Your task to perform on an android device: turn notification dots off Image 0: 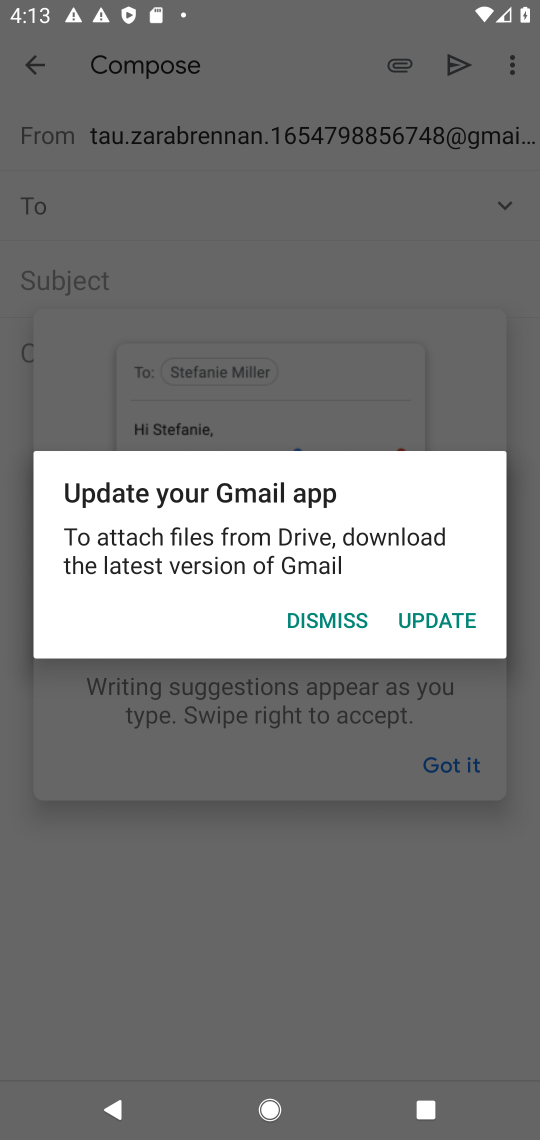
Step 0: press home button
Your task to perform on an android device: turn notification dots off Image 1: 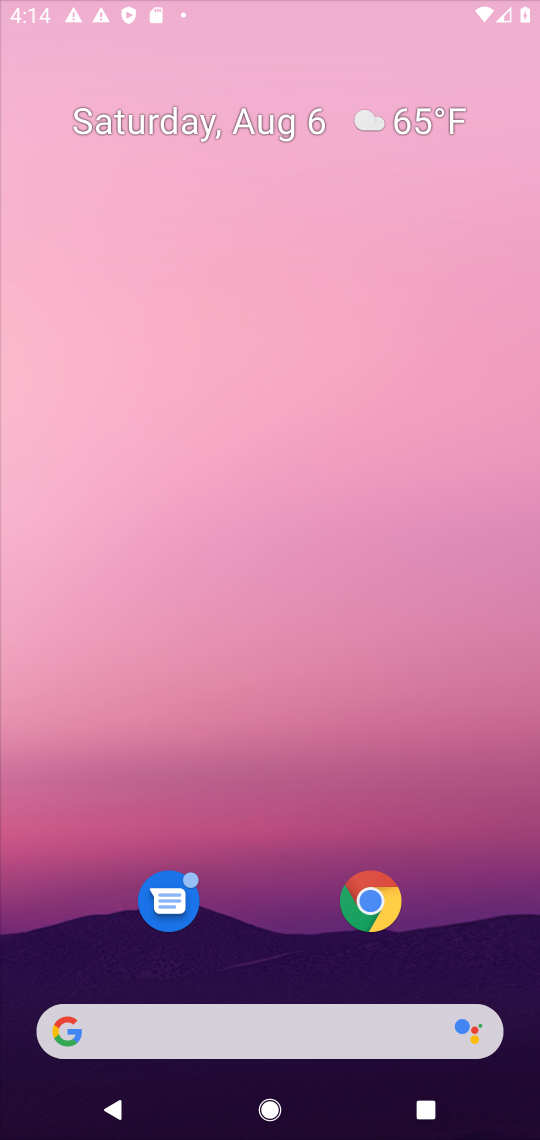
Step 1: drag from (479, 858) to (503, 806)
Your task to perform on an android device: turn notification dots off Image 2: 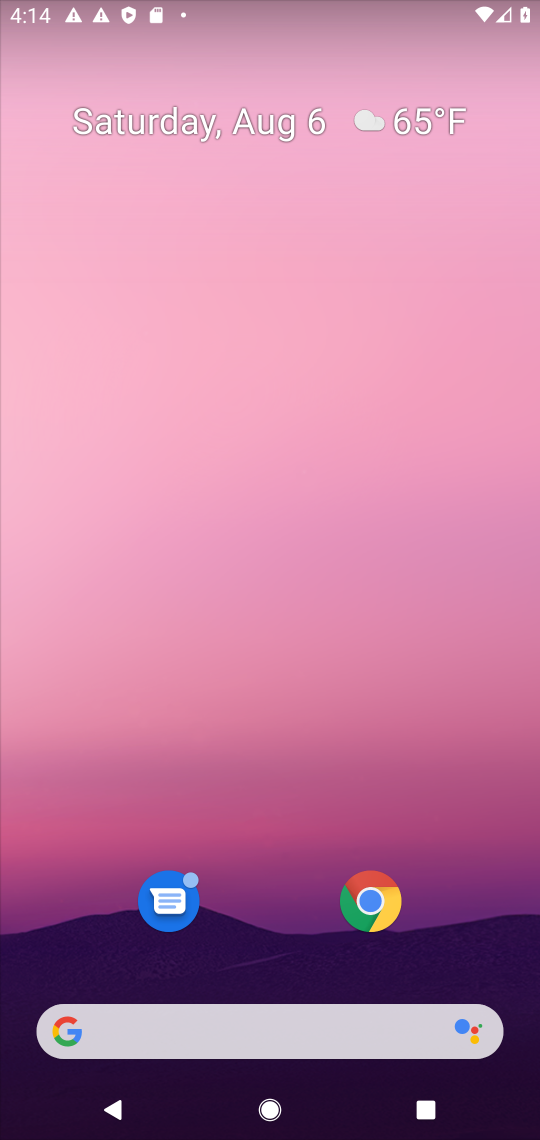
Step 2: drag from (267, 855) to (250, 123)
Your task to perform on an android device: turn notification dots off Image 3: 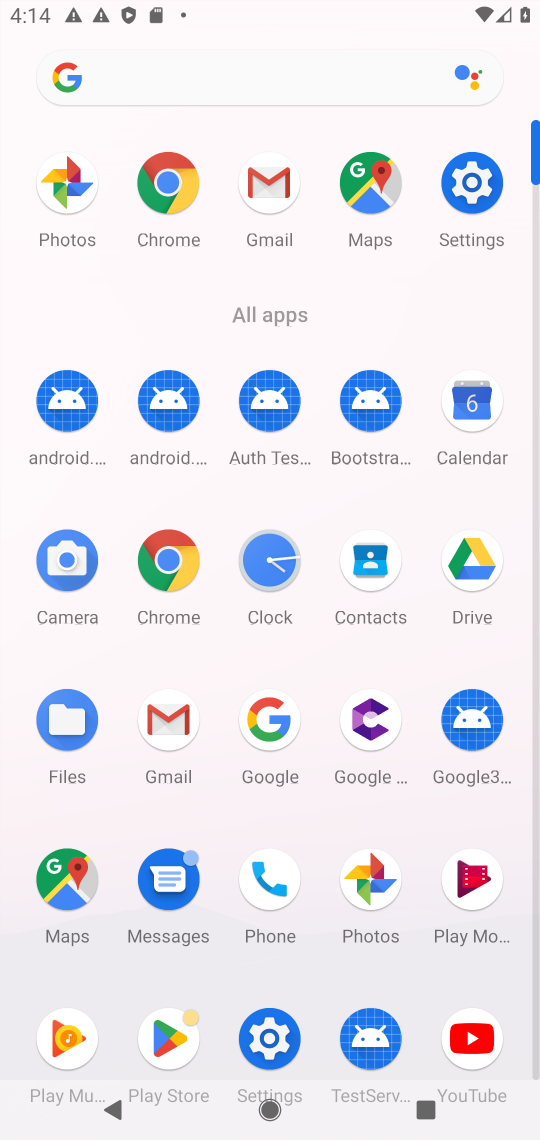
Step 3: click (472, 198)
Your task to perform on an android device: turn notification dots off Image 4: 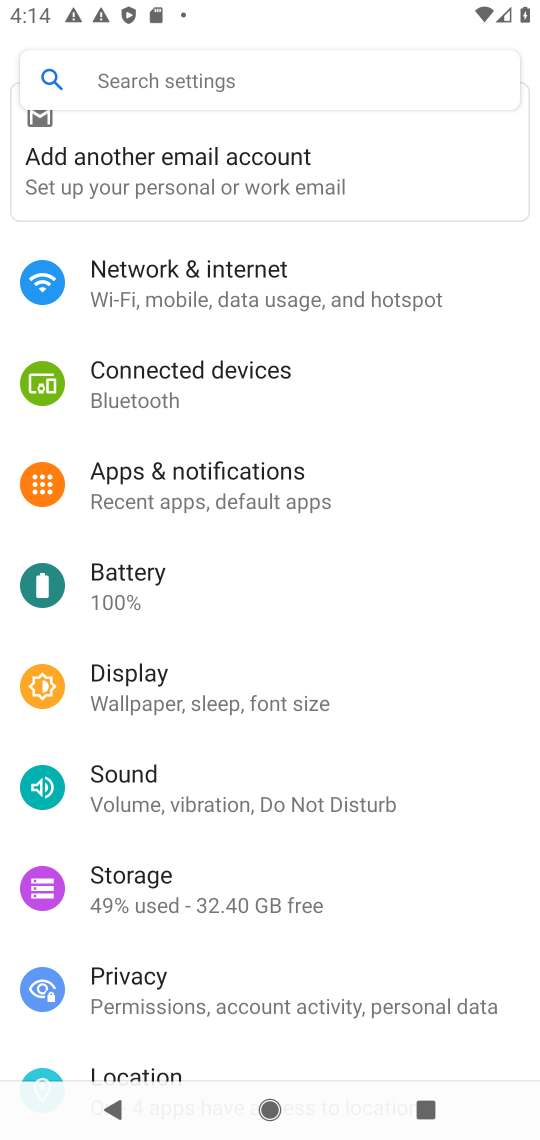
Step 4: click (191, 477)
Your task to perform on an android device: turn notification dots off Image 5: 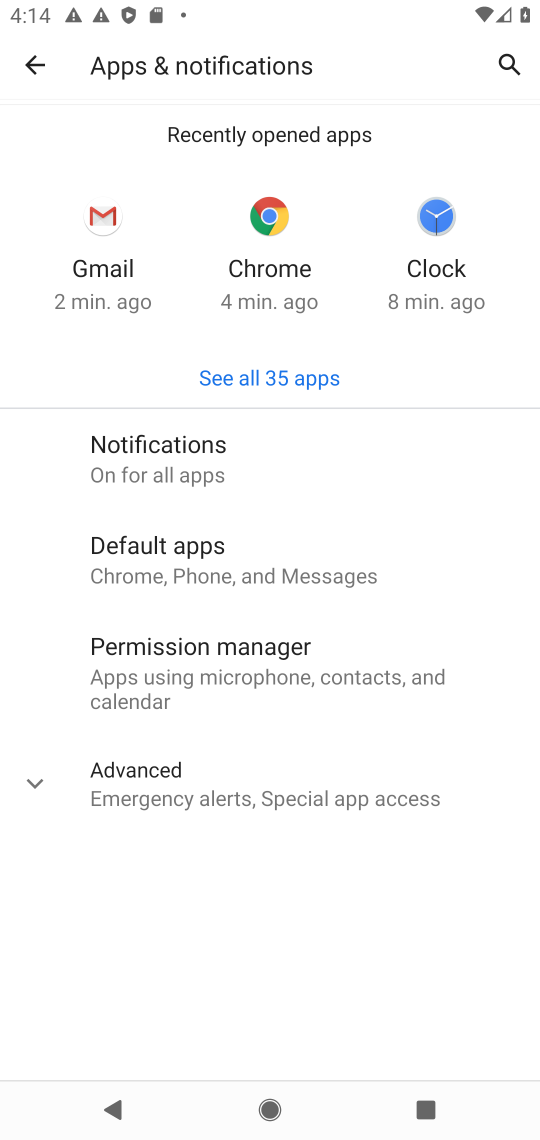
Step 5: click (135, 437)
Your task to perform on an android device: turn notification dots off Image 6: 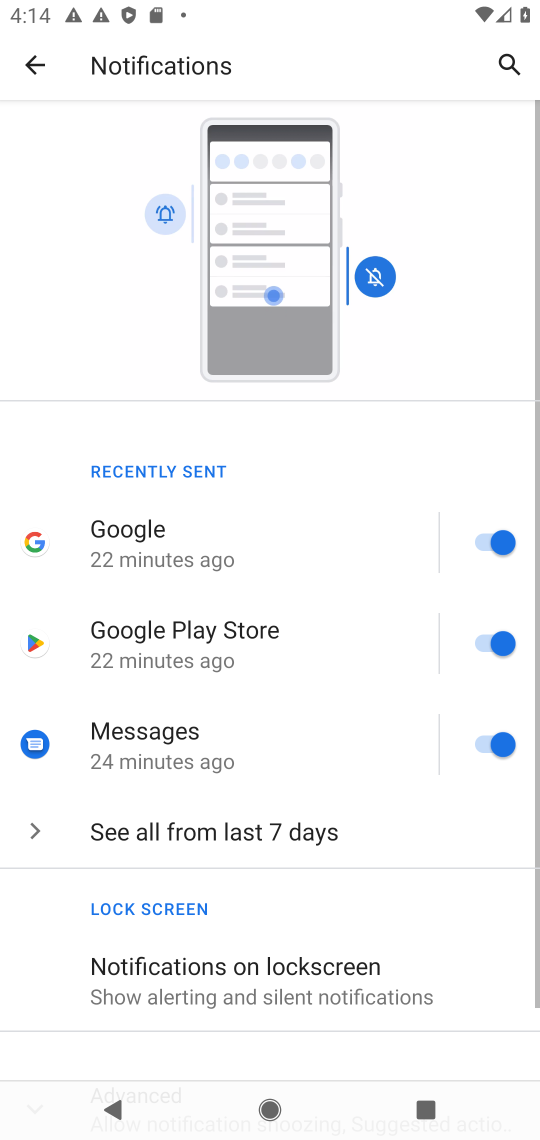
Step 6: drag from (231, 986) to (200, 215)
Your task to perform on an android device: turn notification dots off Image 7: 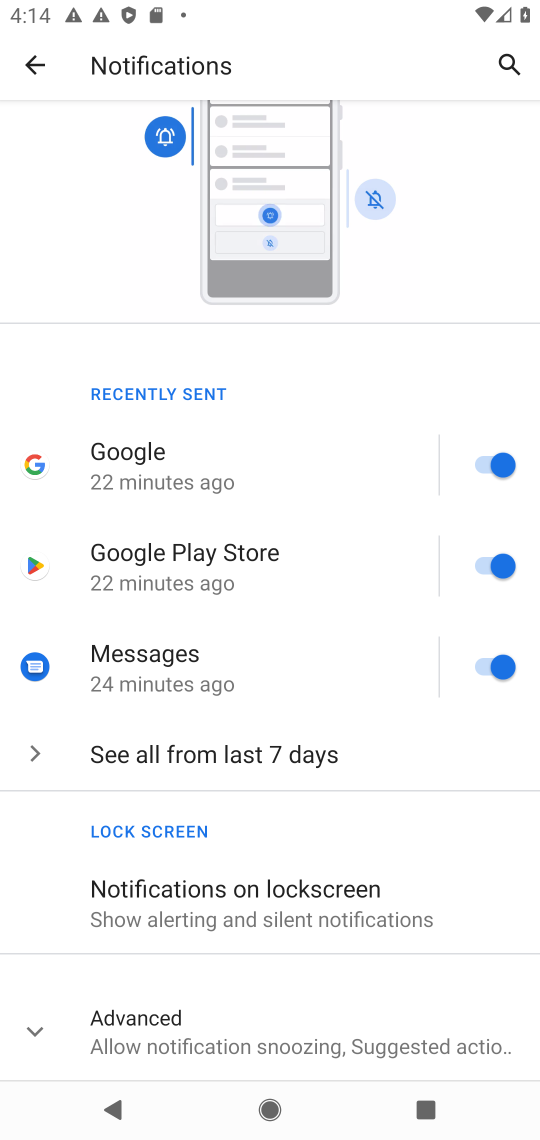
Step 7: click (228, 1042)
Your task to perform on an android device: turn notification dots off Image 8: 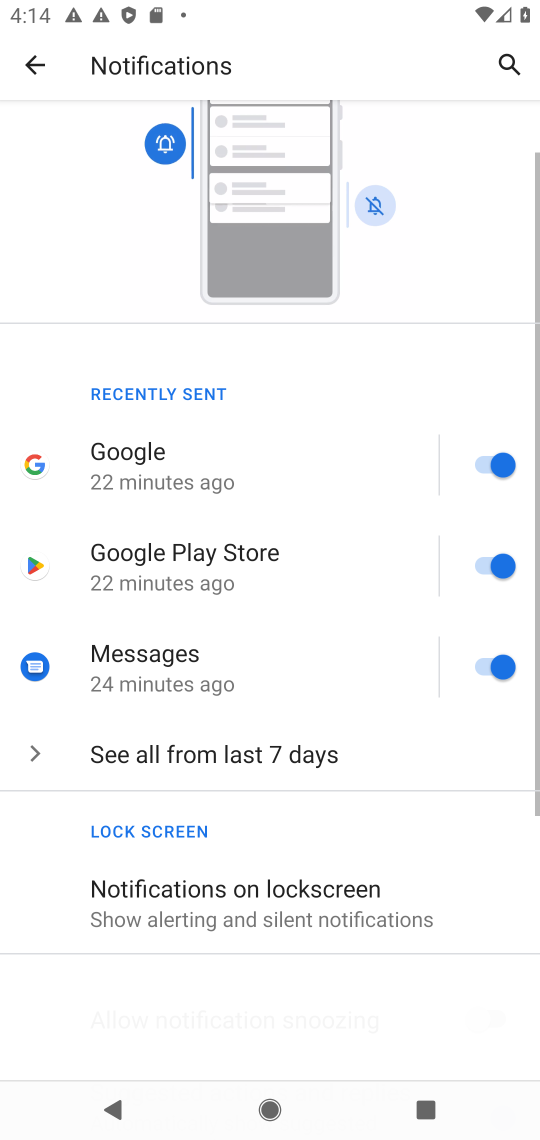
Step 8: drag from (261, 1011) to (271, 348)
Your task to perform on an android device: turn notification dots off Image 9: 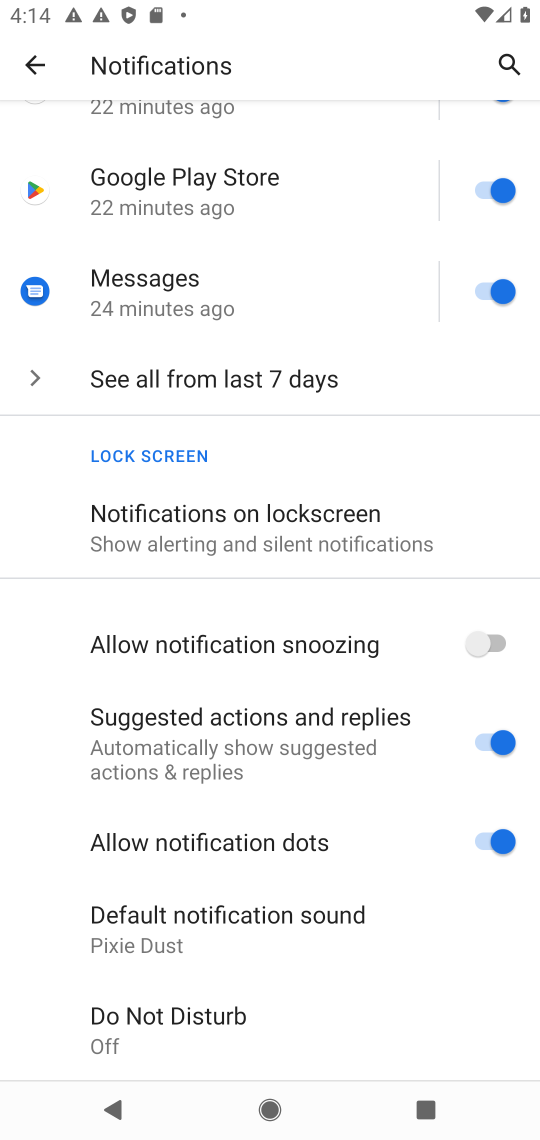
Step 9: click (265, 855)
Your task to perform on an android device: turn notification dots off Image 10: 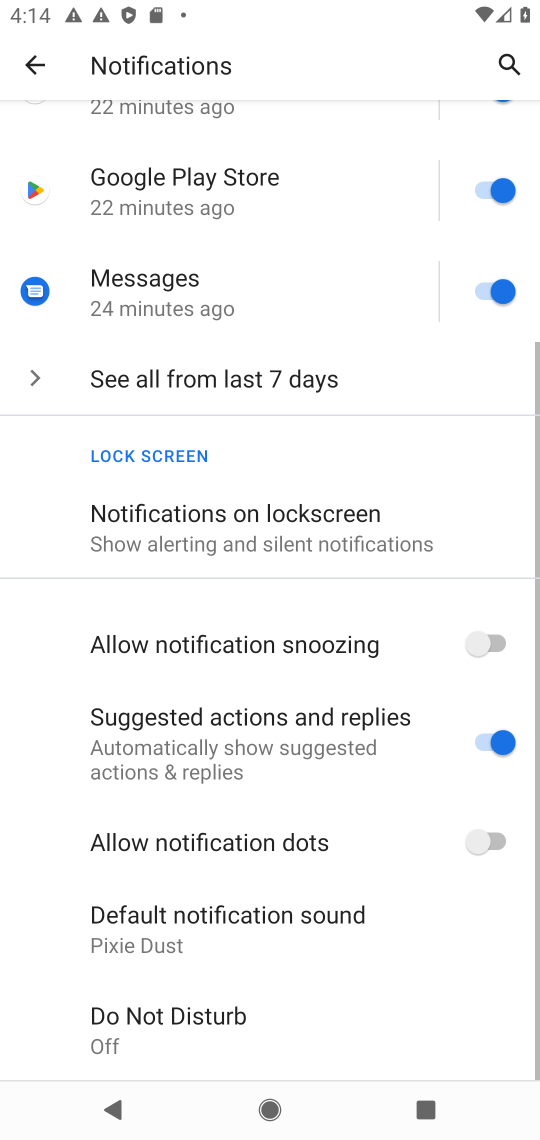
Step 10: task complete